Your task to perform on an android device: Open sound settings Image 0: 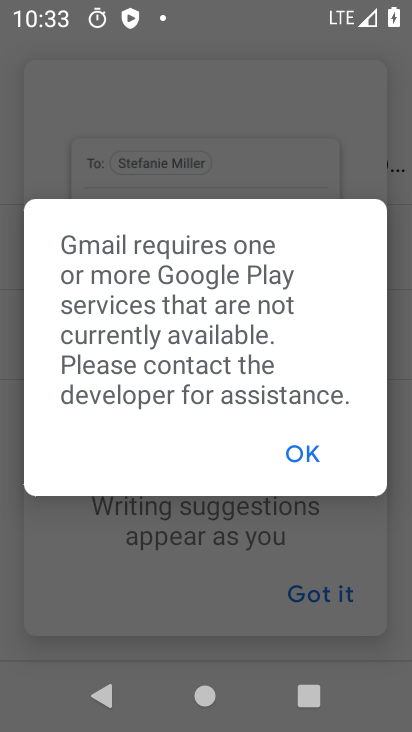
Step 0: press home button
Your task to perform on an android device: Open sound settings Image 1: 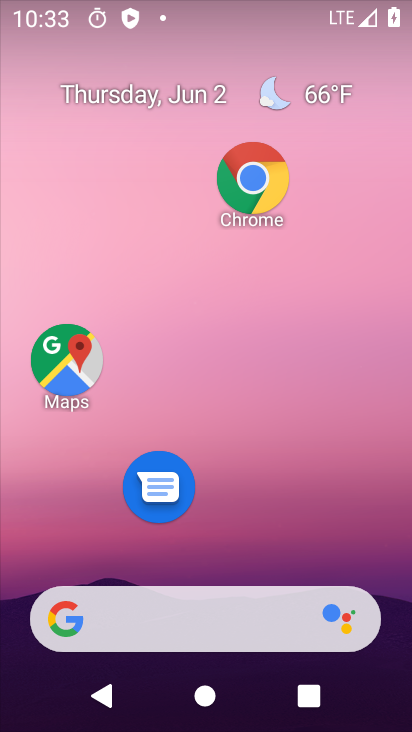
Step 1: drag from (236, 726) to (247, 192)
Your task to perform on an android device: Open sound settings Image 2: 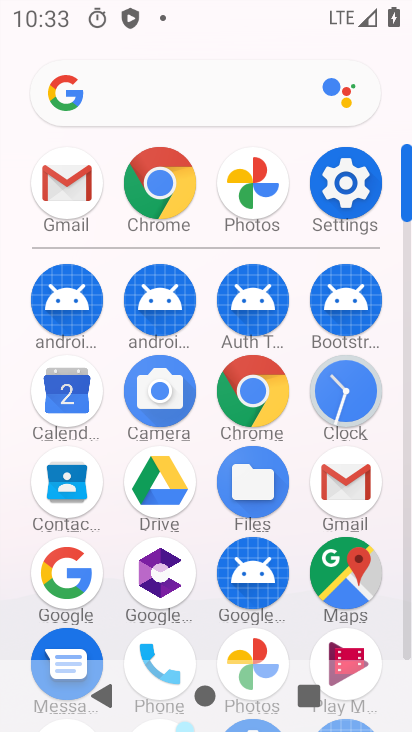
Step 2: click (346, 188)
Your task to perform on an android device: Open sound settings Image 3: 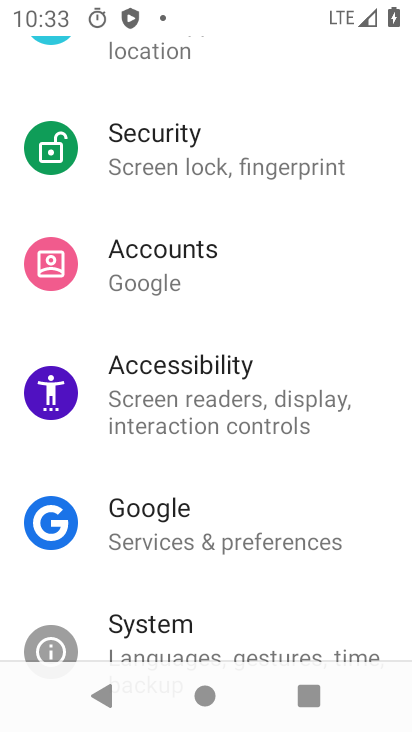
Step 3: drag from (215, 606) to (218, 259)
Your task to perform on an android device: Open sound settings Image 4: 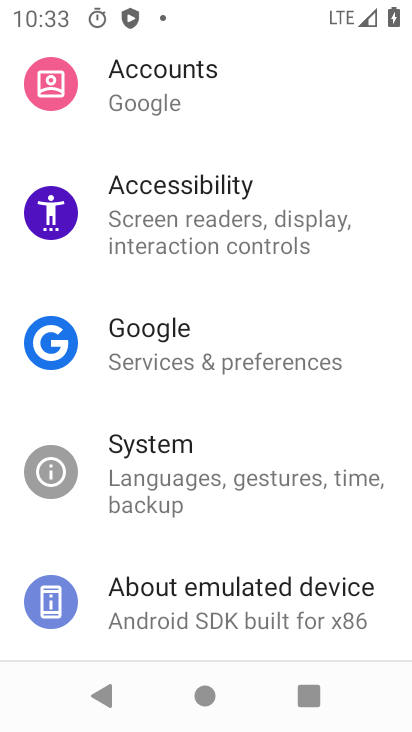
Step 4: drag from (284, 108) to (258, 483)
Your task to perform on an android device: Open sound settings Image 5: 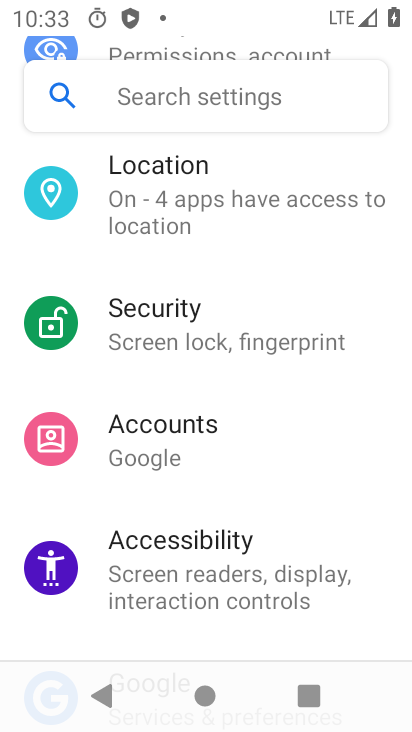
Step 5: drag from (279, 154) to (260, 518)
Your task to perform on an android device: Open sound settings Image 6: 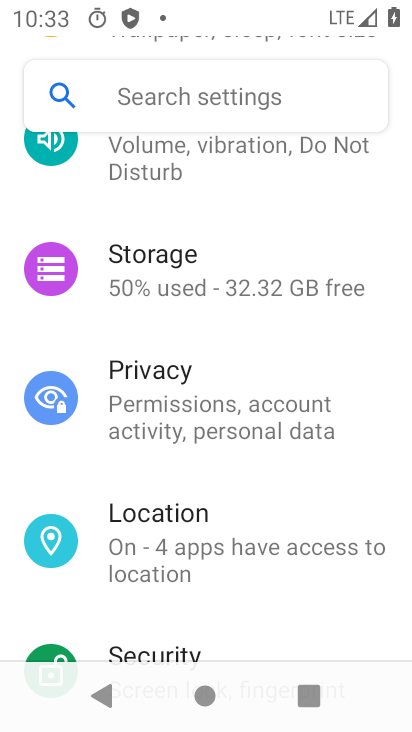
Step 6: drag from (245, 139) to (235, 486)
Your task to perform on an android device: Open sound settings Image 7: 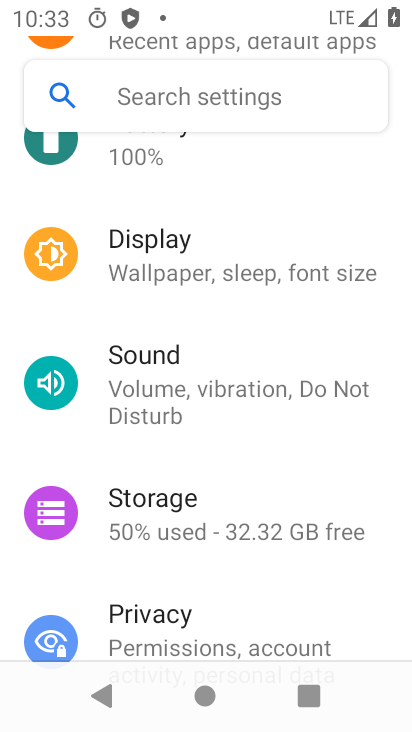
Step 7: click (144, 378)
Your task to perform on an android device: Open sound settings Image 8: 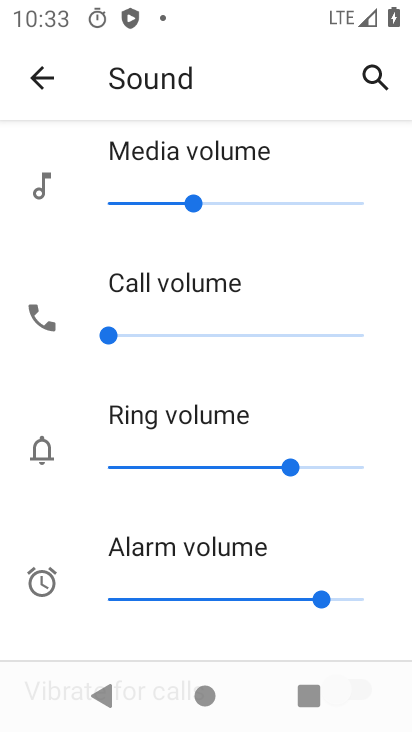
Step 8: task complete